Your task to perform on an android device: change the clock display to digital Image 0: 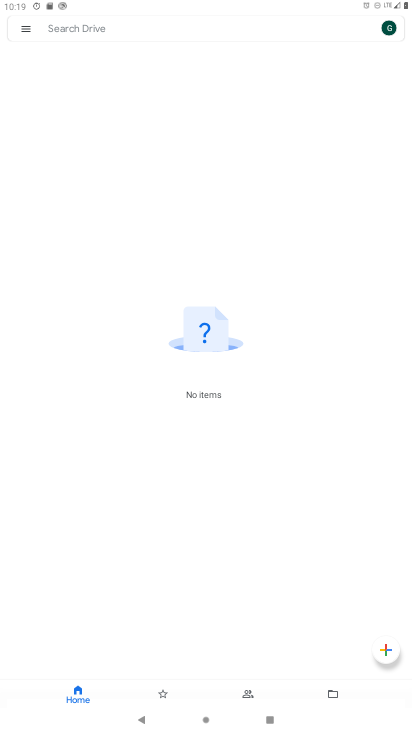
Step 0: press home button
Your task to perform on an android device: change the clock display to digital Image 1: 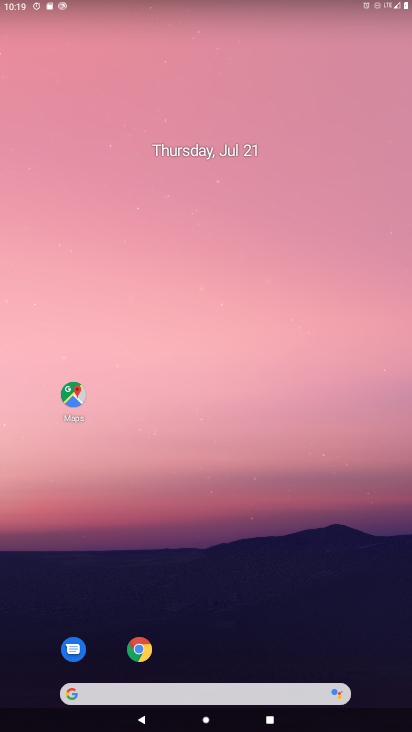
Step 1: click (374, 625)
Your task to perform on an android device: change the clock display to digital Image 2: 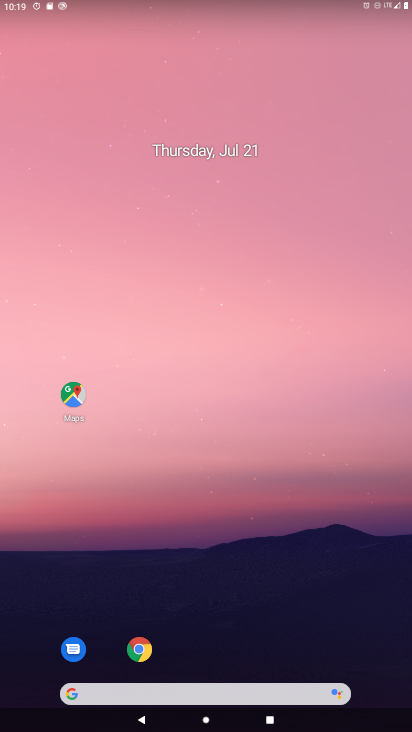
Step 2: drag from (360, 645) to (168, 46)
Your task to perform on an android device: change the clock display to digital Image 3: 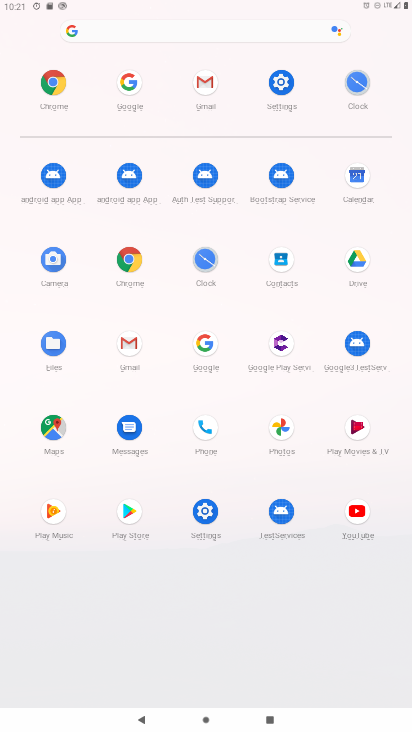
Step 3: click (198, 254)
Your task to perform on an android device: change the clock display to digital Image 4: 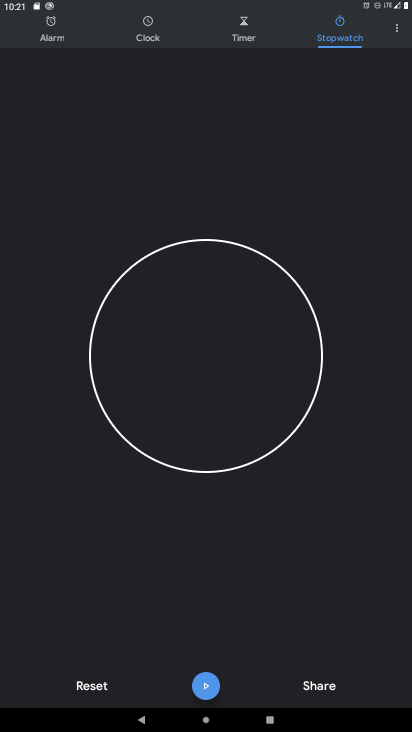
Step 4: click (391, 26)
Your task to perform on an android device: change the clock display to digital Image 5: 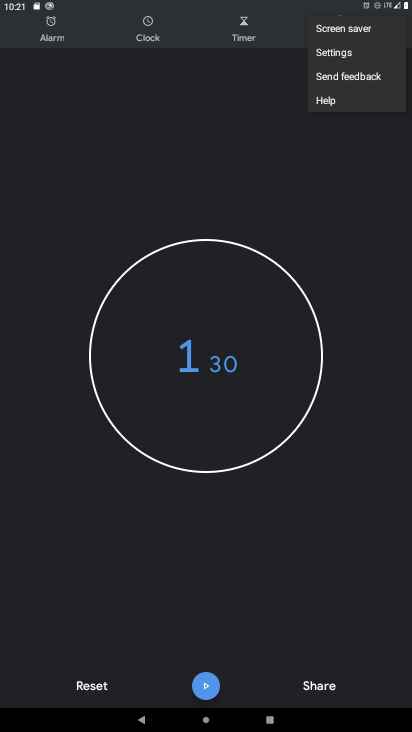
Step 5: click (332, 51)
Your task to perform on an android device: change the clock display to digital Image 6: 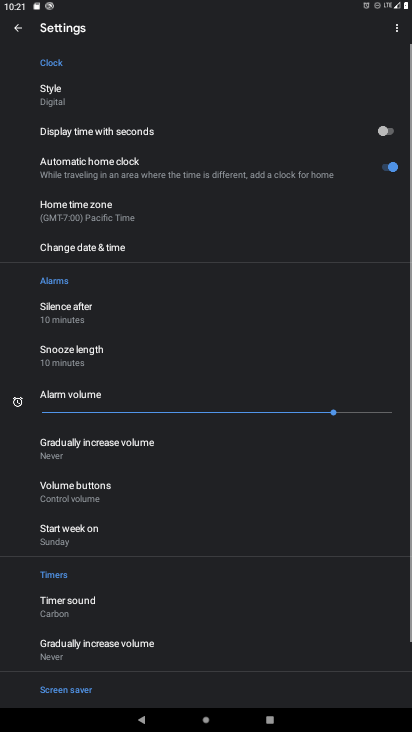
Step 6: click (66, 92)
Your task to perform on an android device: change the clock display to digital Image 7: 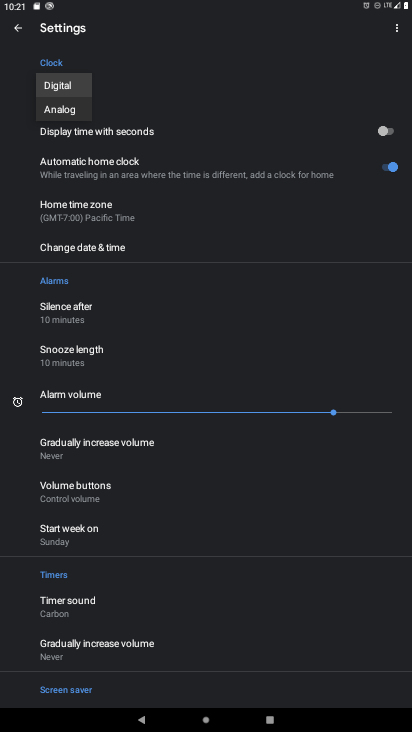
Step 7: task complete